Your task to perform on an android device: What's the top post on reddit right now? Image 0: 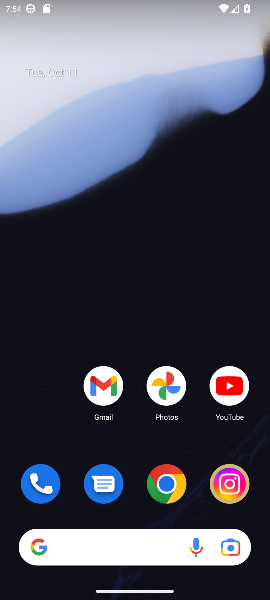
Step 0: click (167, 488)
Your task to perform on an android device: What's the top post on reddit right now? Image 1: 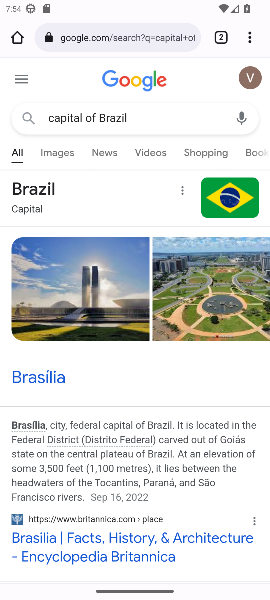
Step 1: click (125, 33)
Your task to perform on an android device: What's the top post on reddit right now? Image 2: 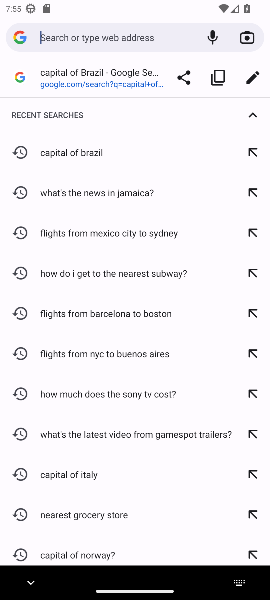
Step 2: type "What's the top post on reddit right now?"
Your task to perform on an android device: What's the top post on reddit right now? Image 3: 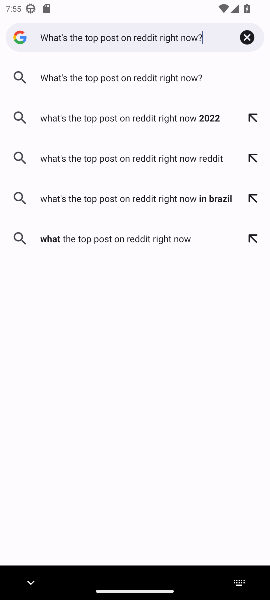
Step 3: click (110, 75)
Your task to perform on an android device: What's the top post on reddit right now? Image 4: 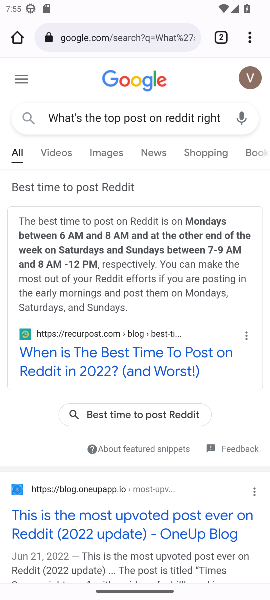
Step 4: drag from (104, 525) to (159, 446)
Your task to perform on an android device: What's the top post on reddit right now? Image 5: 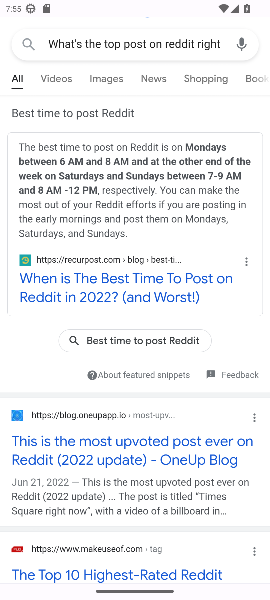
Step 5: drag from (124, 504) to (134, 450)
Your task to perform on an android device: What's the top post on reddit right now? Image 6: 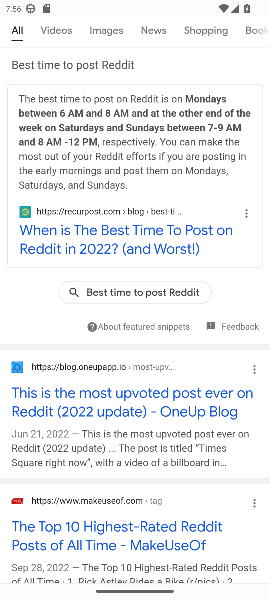
Step 6: click (72, 399)
Your task to perform on an android device: What's the top post on reddit right now? Image 7: 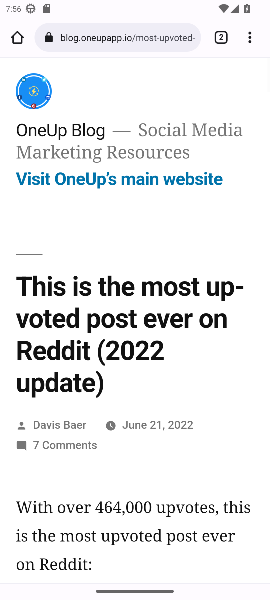
Step 7: task complete